Your task to perform on an android device: Open the calendar and show me this week's events? Image 0: 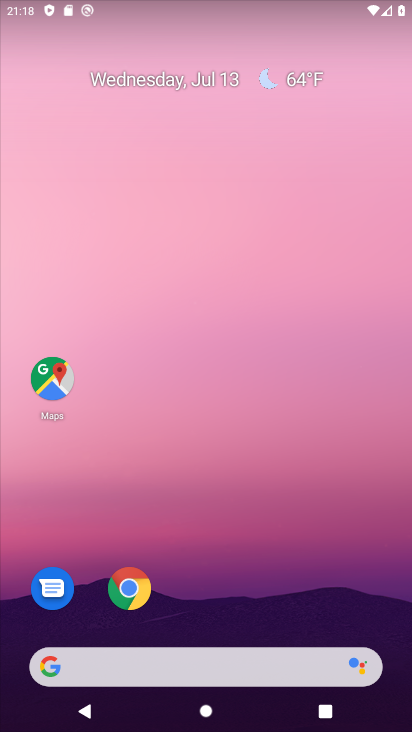
Step 0: drag from (230, 615) to (269, 5)
Your task to perform on an android device: Open the calendar and show me this week's events? Image 1: 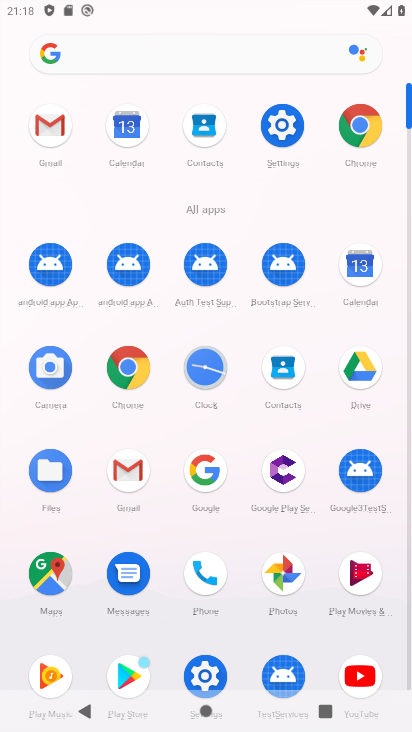
Step 1: click (359, 269)
Your task to perform on an android device: Open the calendar and show me this week's events? Image 2: 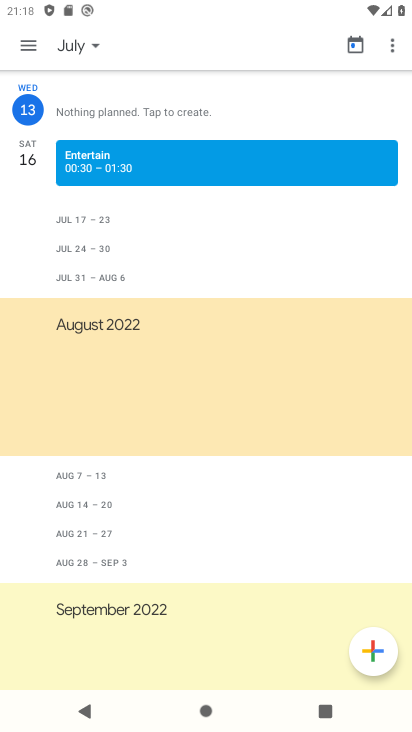
Step 2: task complete